Your task to perform on an android device: toggle notification dots Image 0: 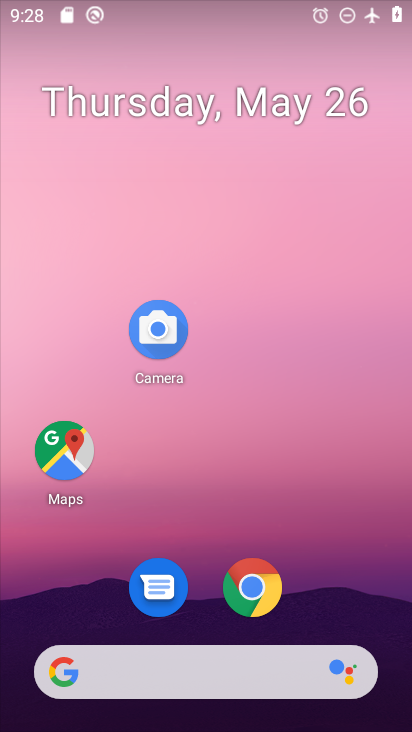
Step 0: drag from (209, 618) to (223, 233)
Your task to perform on an android device: toggle notification dots Image 1: 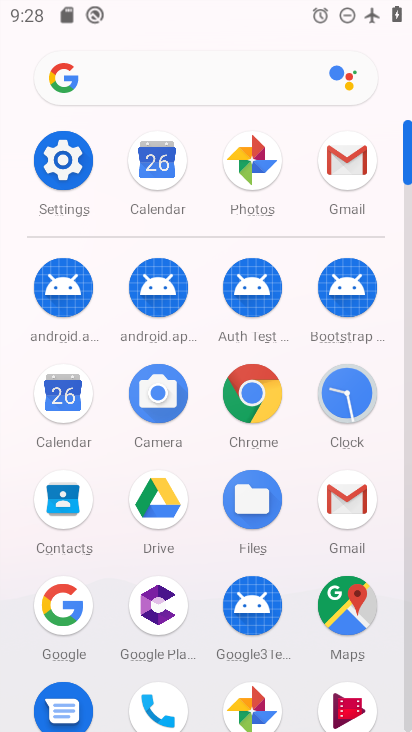
Step 1: click (42, 160)
Your task to perform on an android device: toggle notification dots Image 2: 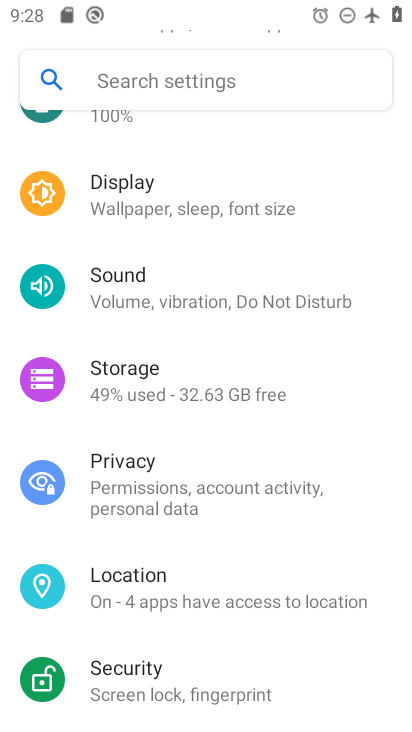
Step 2: drag from (232, 255) to (269, 612)
Your task to perform on an android device: toggle notification dots Image 3: 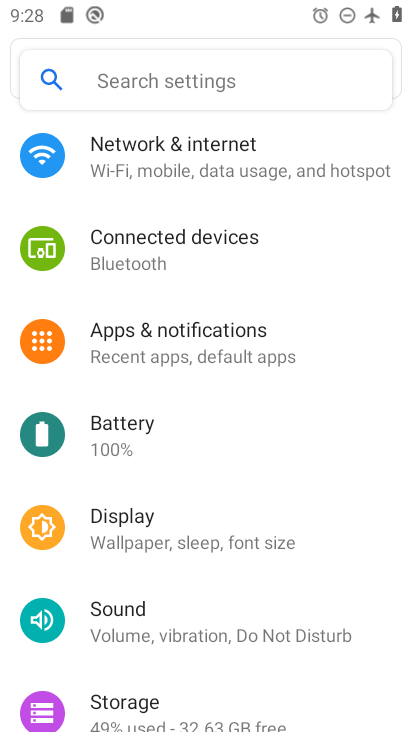
Step 3: click (204, 342)
Your task to perform on an android device: toggle notification dots Image 4: 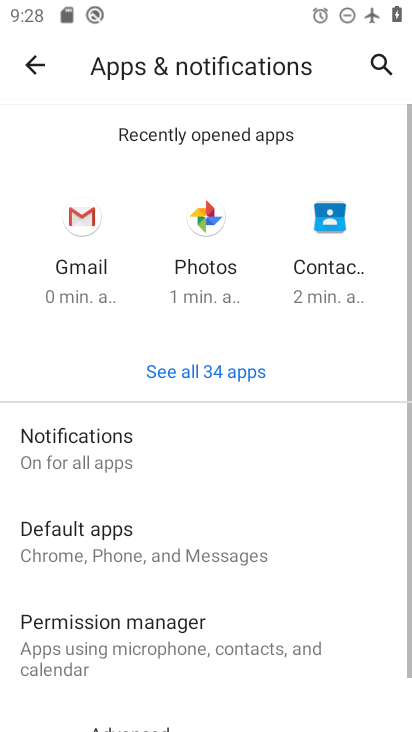
Step 4: click (155, 464)
Your task to perform on an android device: toggle notification dots Image 5: 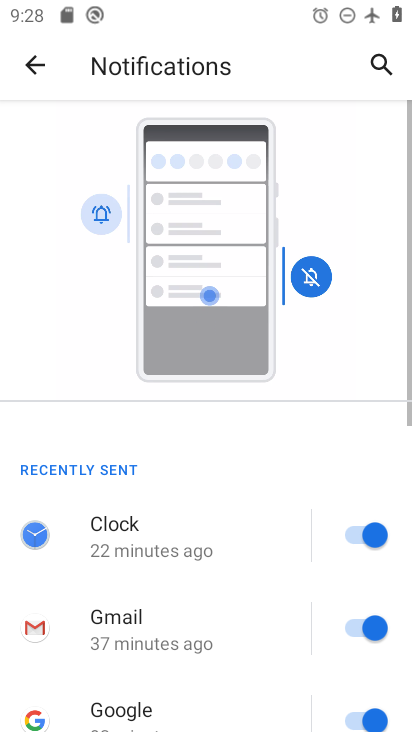
Step 5: drag from (240, 627) to (254, 289)
Your task to perform on an android device: toggle notification dots Image 6: 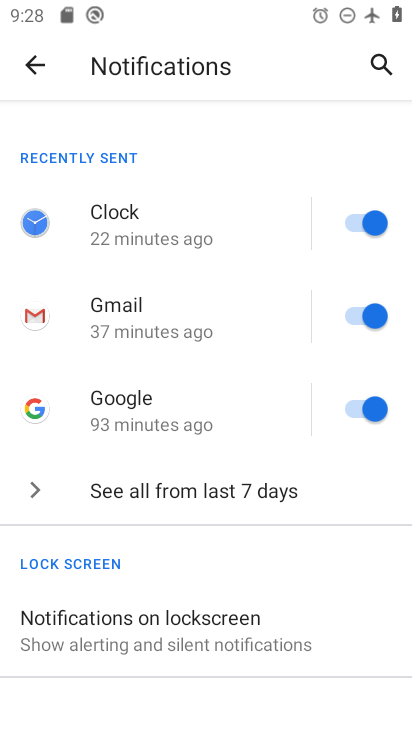
Step 6: drag from (256, 654) to (284, 414)
Your task to perform on an android device: toggle notification dots Image 7: 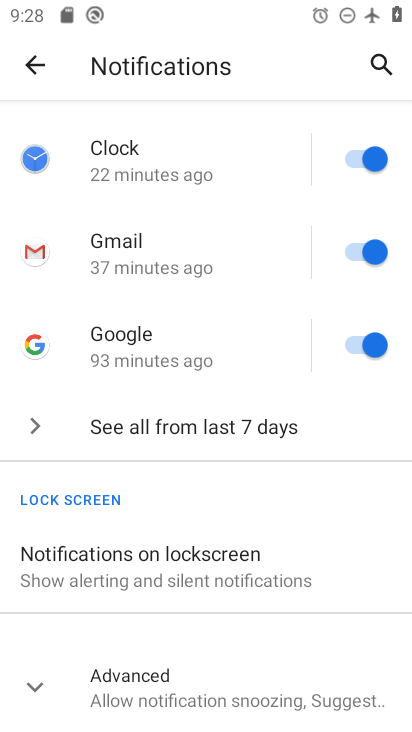
Step 7: click (260, 674)
Your task to perform on an android device: toggle notification dots Image 8: 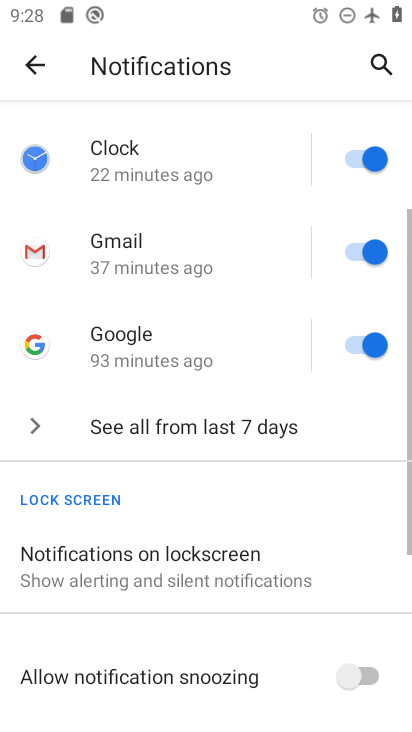
Step 8: drag from (260, 674) to (243, 431)
Your task to perform on an android device: toggle notification dots Image 9: 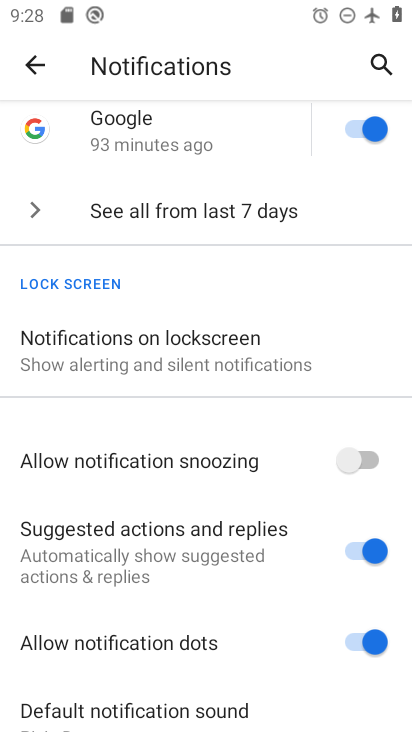
Step 9: click (349, 643)
Your task to perform on an android device: toggle notification dots Image 10: 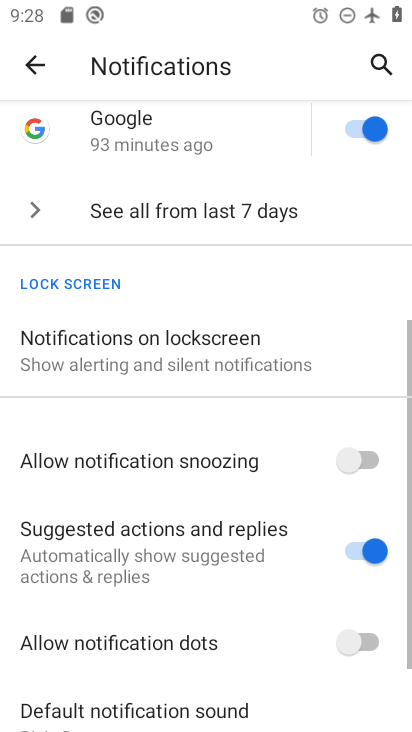
Step 10: task complete